Your task to perform on an android device: set the stopwatch Image 0: 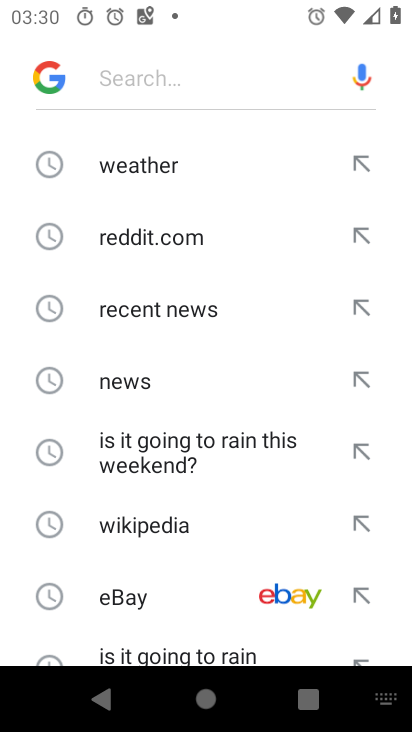
Step 0: press home button
Your task to perform on an android device: set the stopwatch Image 1: 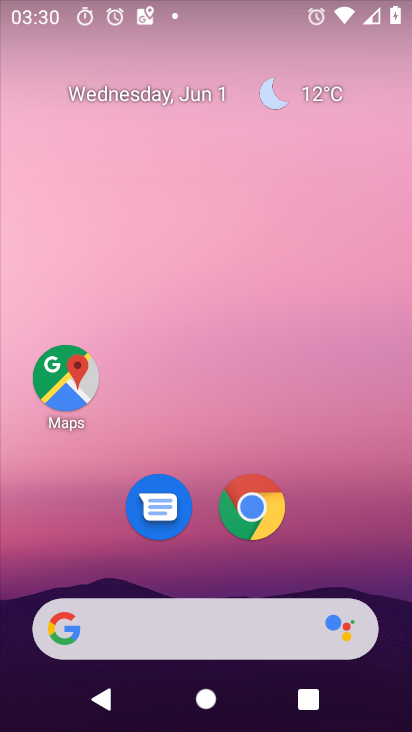
Step 1: drag from (350, 526) to (335, 0)
Your task to perform on an android device: set the stopwatch Image 2: 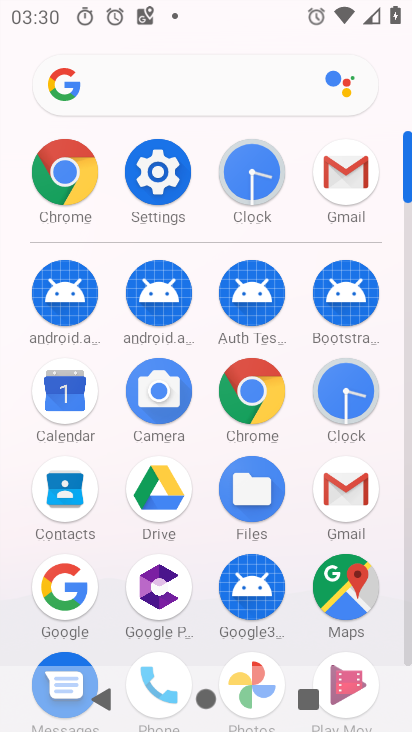
Step 2: click (254, 190)
Your task to perform on an android device: set the stopwatch Image 3: 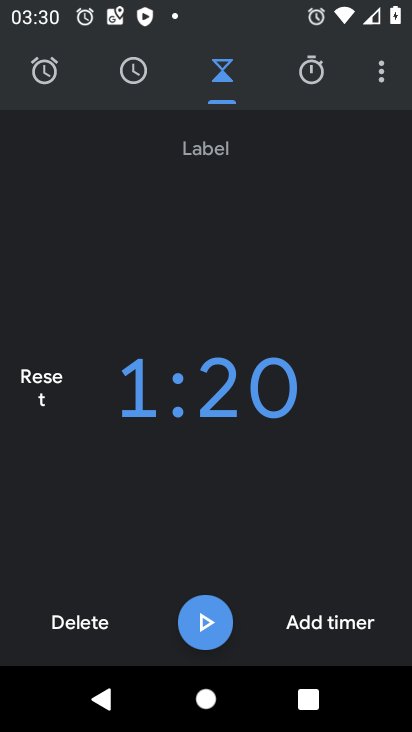
Step 3: click (306, 72)
Your task to perform on an android device: set the stopwatch Image 4: 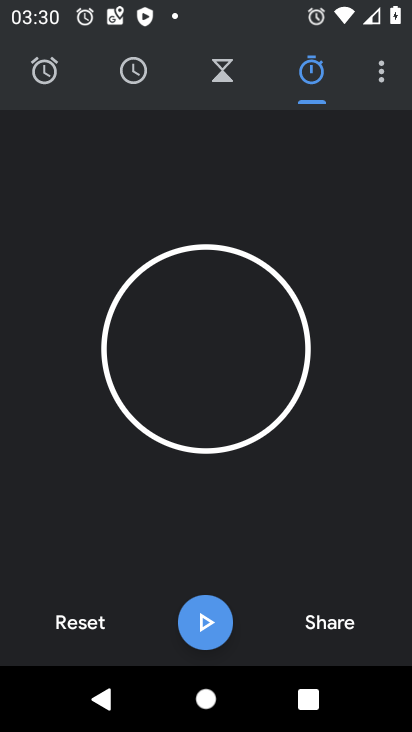
Step 4: click (83, 632)
Your task to perform on an android device: set the stopwatch Image 5: 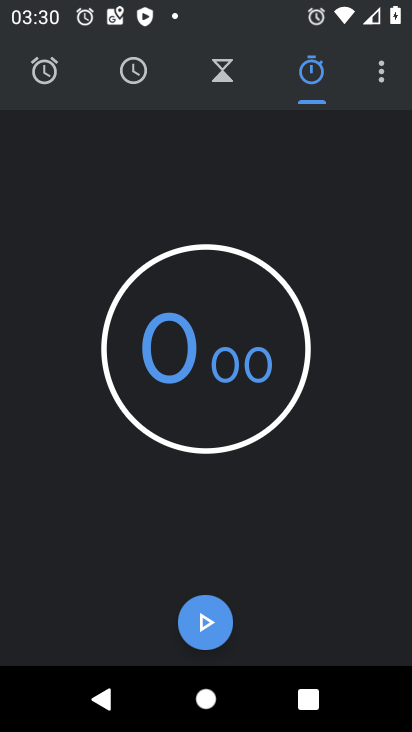
Step 5: click (221, 635)
Your task to perform on an android device: set the stopwatch Image 6: 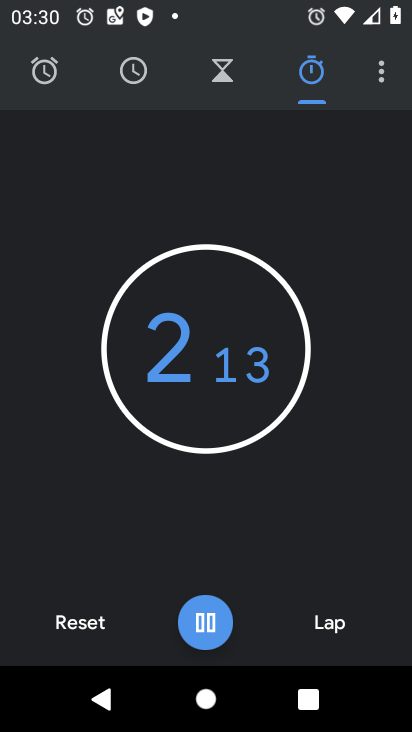
Step 6: click (198, 630)
Your task to perform on an android device: set the stopwatch Image 7: 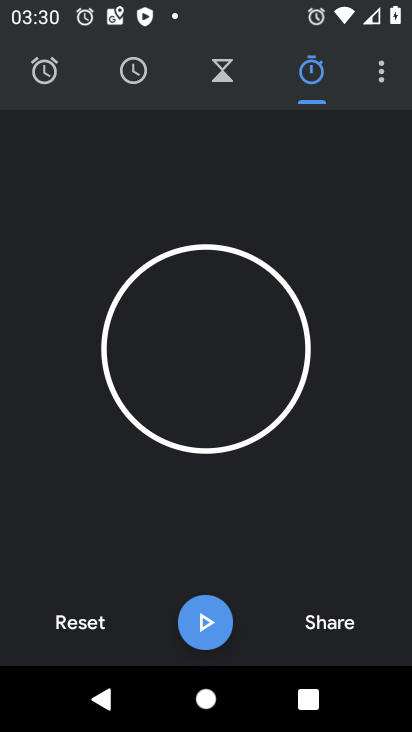
Step 7: task complete